Your task to perform on an android device: Go to Reddit.com Image 0: 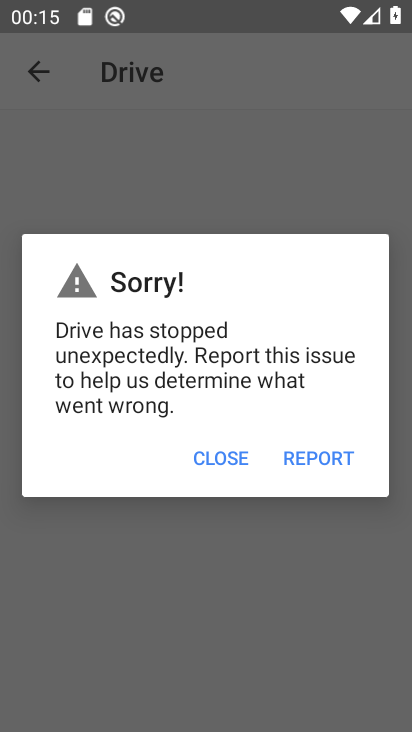
Step 0: click (223, 457)
Your task to perform on an android device: Go to Reddit.com Image 1: 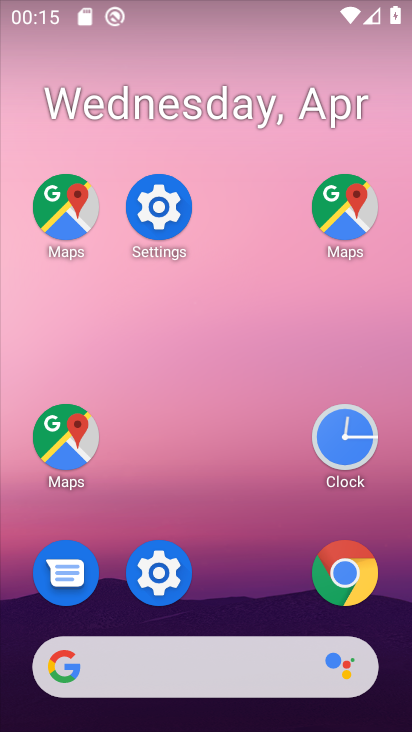
Step 1: drag from (301, 636) to (124, 156)
Your task to perform on an android device: Go to Reddit.com Image 2: 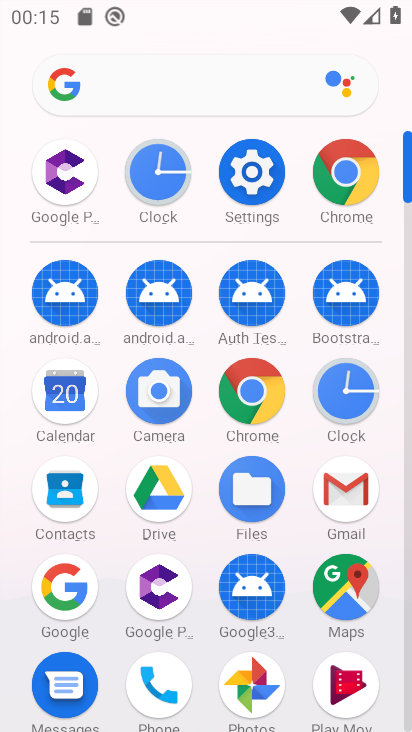
Step 2: click (249, 395)
Your task to perform on an android device: Go to Reddit.com Image 3: 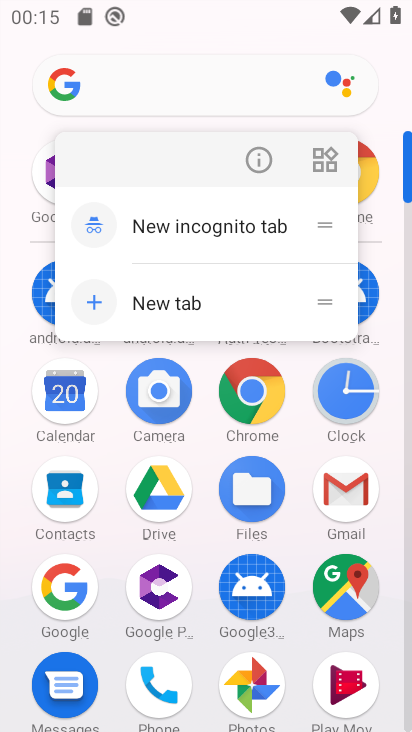
Step 3: click (249, 396)
Your task to perform on an android device: Go to Reddit.com Image 4: 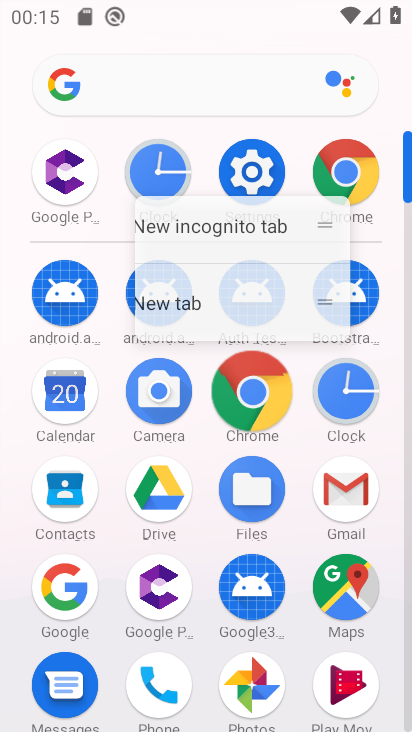
Step 4: click (249, 396)
Your task to perform on an android device: Go to Reddit.com Image 5: 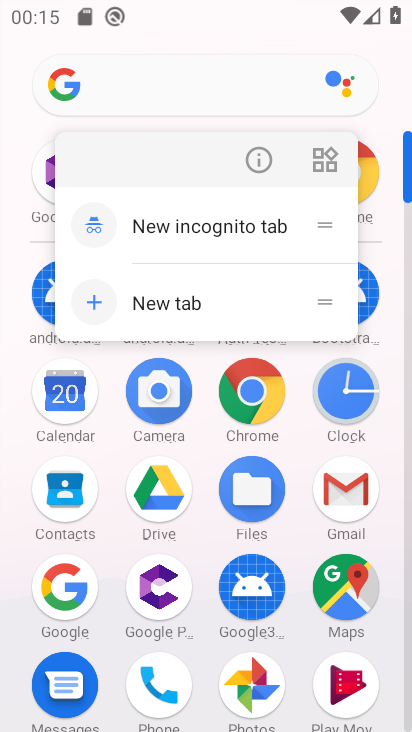
Step 5: click (238, 395)
Your task to perform on an android device: Go to Reddit.com Image 6: 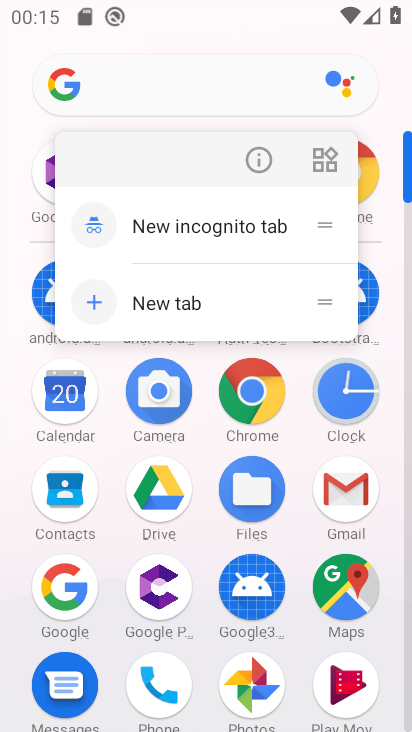
Step 6: click (238, 394)
Your task to perform on an android device: Go to Reddit.com Image 7: 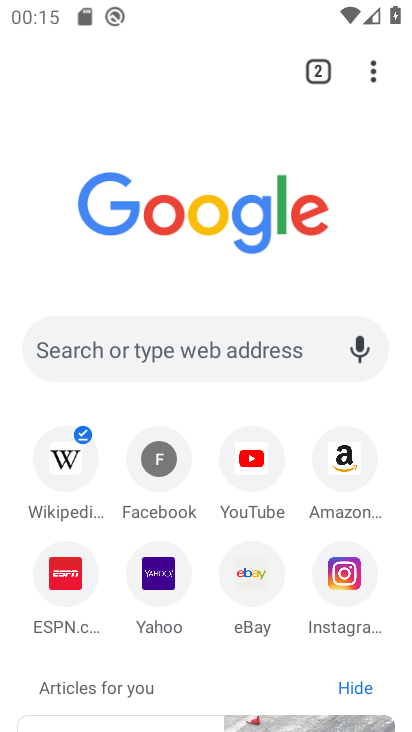
Step 7: click (67, 344)
Your task to perform on an android device: Go to Reddit.com Image 8: 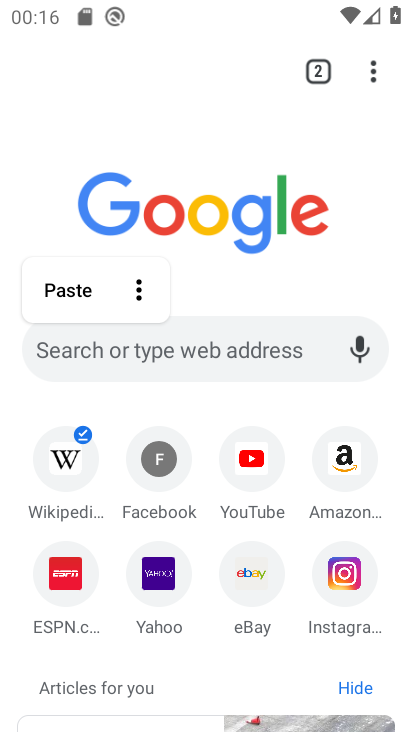
Step 8: type "www.reddit.com"
Your task to perform on an android device: Go to Reddit.com Image 9: 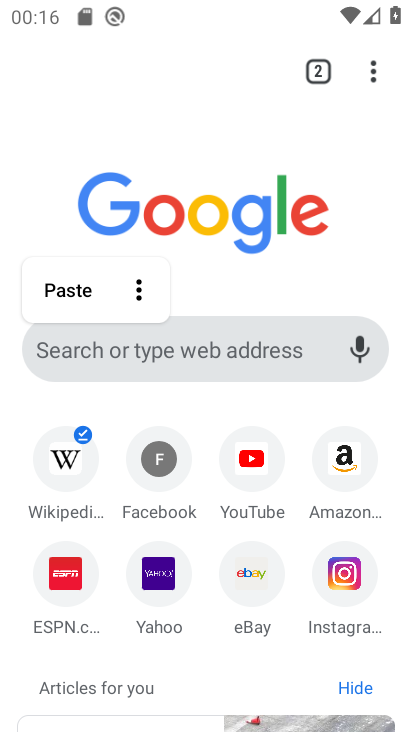
Step 9: click (68, 354)
Your task to perform on an android device: Go to Reddit.com Image 10: 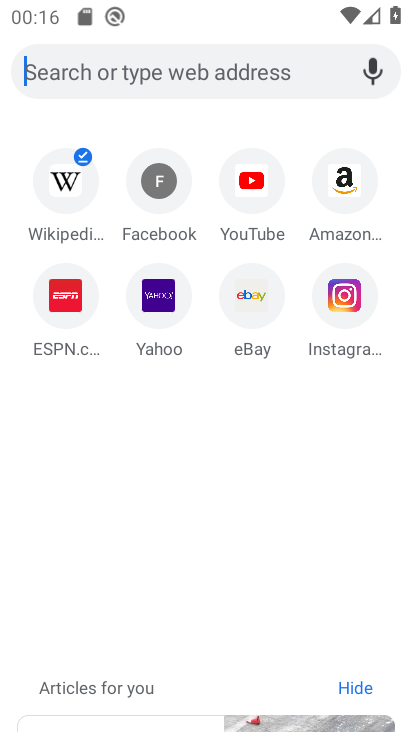
Step 10: click (68, 354)
Your task to perform on an android device: Go to Reddit.com Image 11: 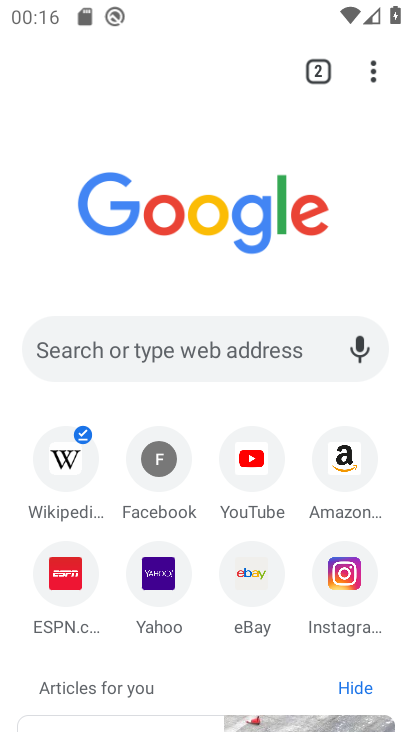
Step 11: click (64, 355)
Your task to perform on an android device: Go to Reddit.com Image 12: 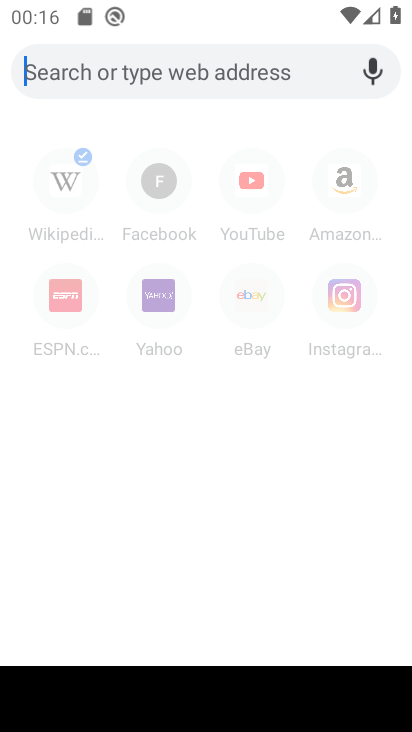
Step 12: type "www.reddit.com"
Your task to perform on an android device: Go to Reddit.com Image 13: 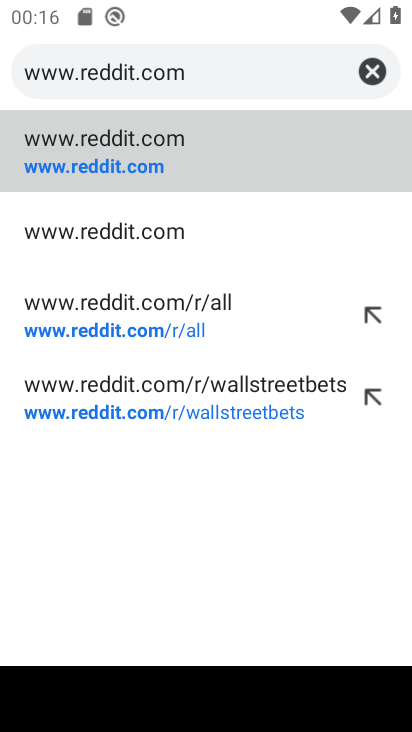
Step 13: click (117, 160)
Your task to perform on an android device: Go to Reddit.com Image 14: 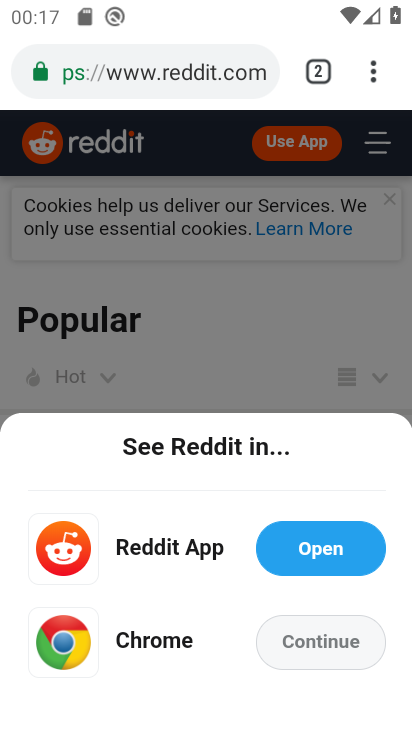
Step 14: task complete